Your task to perform on an android device: Show me popular games on the Play Store Image 0: 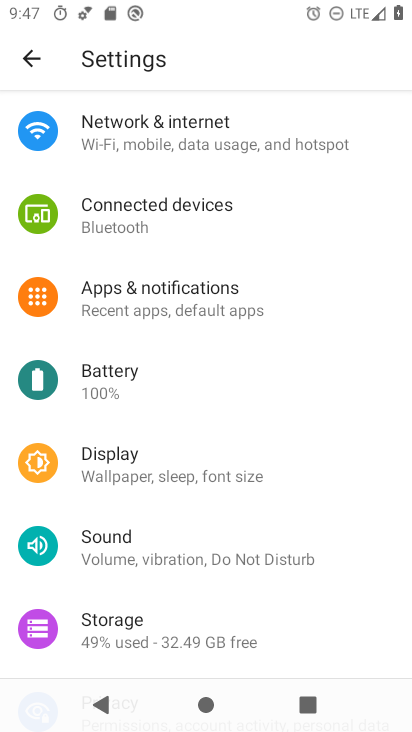
Step 0: press home button
Your task to perform on an android device: Show me popular games on the Play Store Image 1: 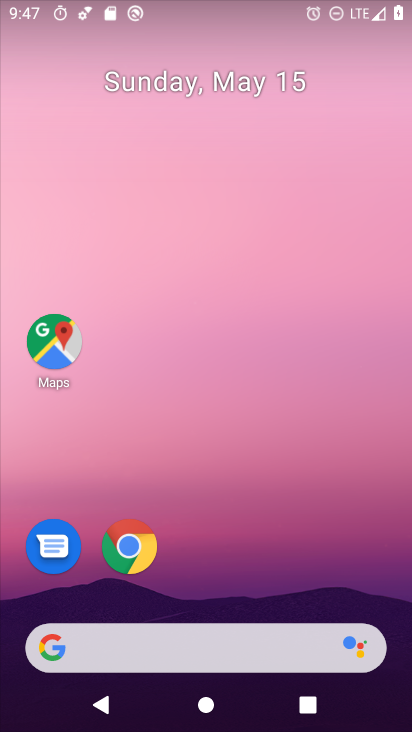
Step 1: drag from (276, 521) to (233, 13)
Your task to perform on an android device: Show me popular games on the Play Store Image 2: 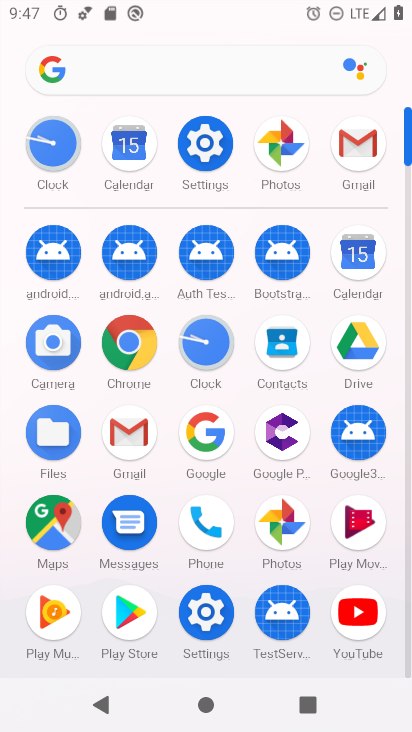
Step 2: click (140, 599)
Your task to perform on an android device: Show me popular games on the Play Store Image 3: 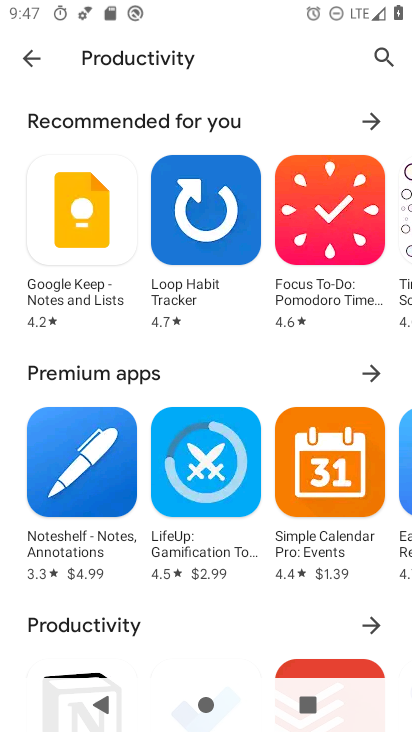
Step 3: click (33, 54)
Your task to perform on an android device: Show me popular games on the Play Store Image 4: 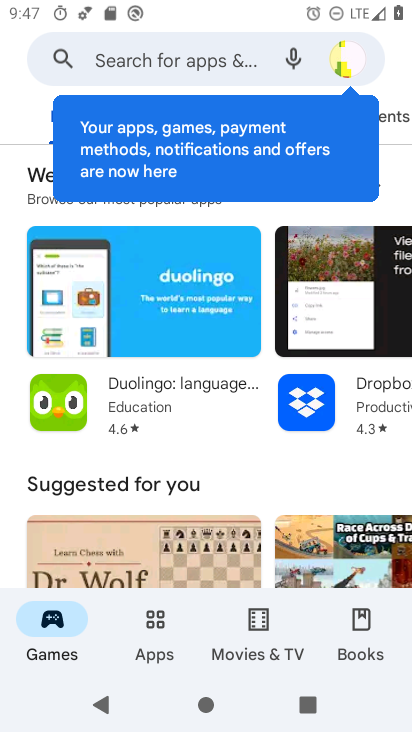
Step 4: drag from (241, 464) to (244, 145)
Your task to perform on an android device: Show me popular games on the Play Store Image 5: 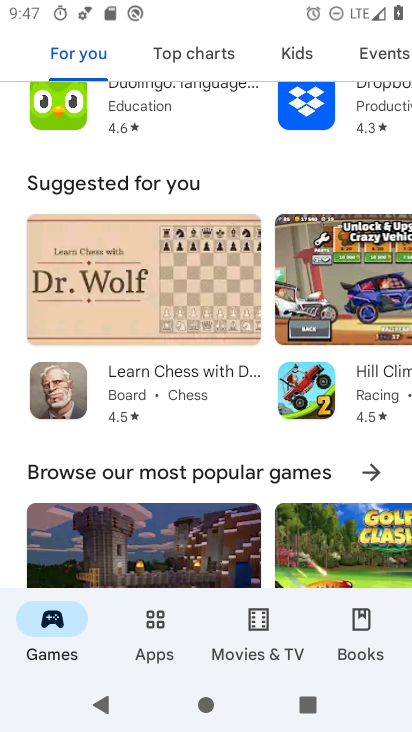
Step 5: click (365, 461)
Your task to perform on an android device: Show me popular games on the Play Store Image 6: 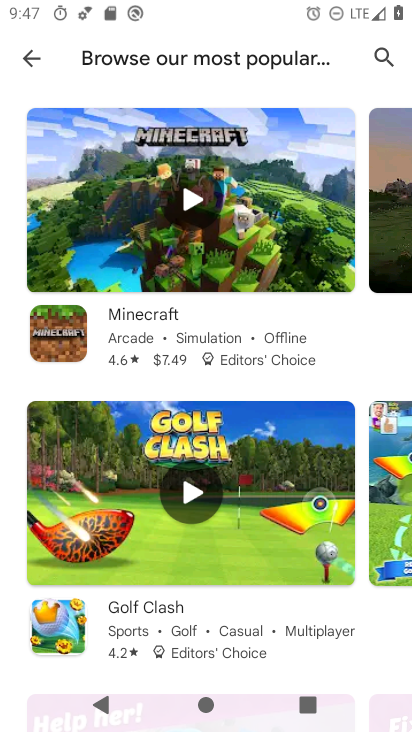
Step 6: task complete